Your task to perform on an android device: change the clock style Image 0: 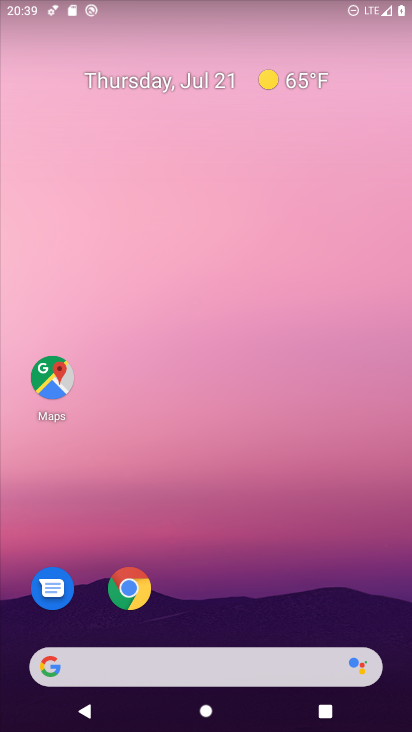
Step 0: drag from (182, 627) to (93, 7)
Your task to perform on an android device: change the clock style Image 1: 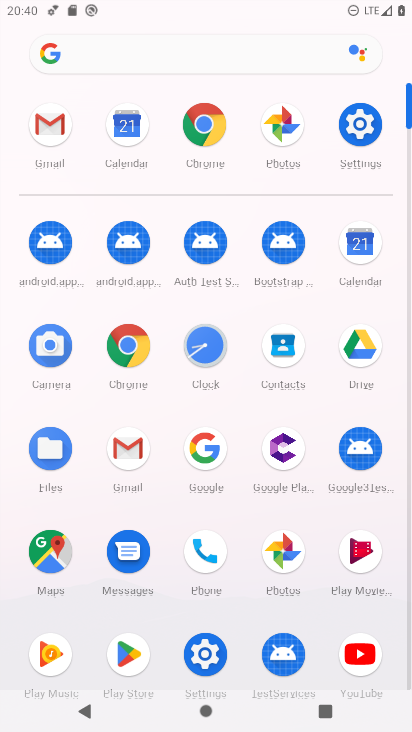
Step 1: click (222, 353)
Your task to perform on an android device: change the clock style Image 2: 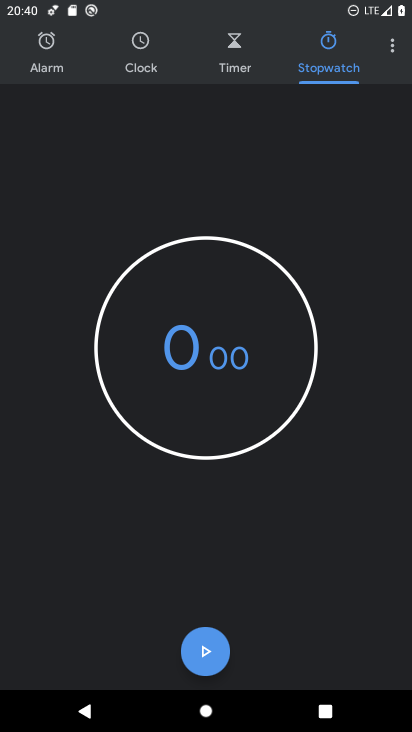
Step 2: drag from (394, 43) to (298, 94)
Your task to perform on an android device: change the clock style Image 3: 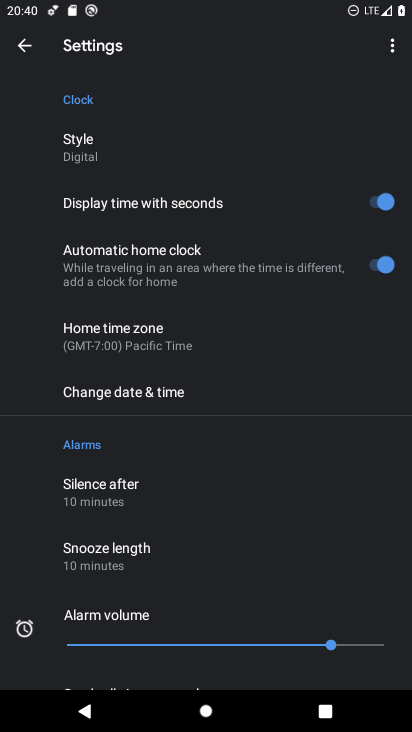
Step 3: click (128, 155)
Your task to perform on an android device: change the clock style Image 4: 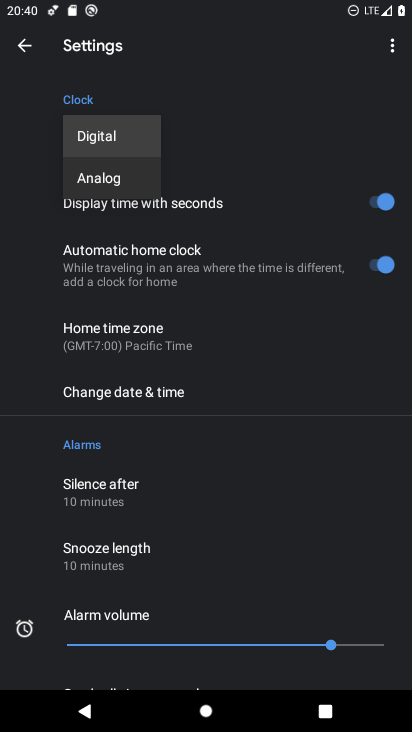
Step 4: click (114, 176)
Your task to perform on an android device: change the clock style Image 5: 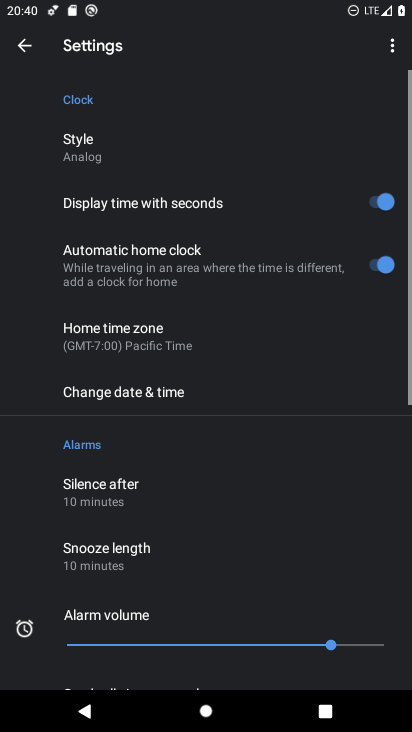
Step 5: task complete